Your task to perform on an android device: Open Google Chrome Image 0: 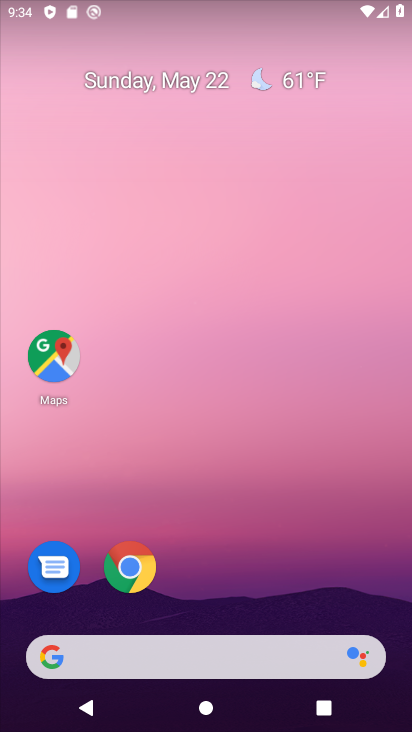
Step 0: click (126, 581)
Your task to perform on an android device: Open Google Chrome Image 1: 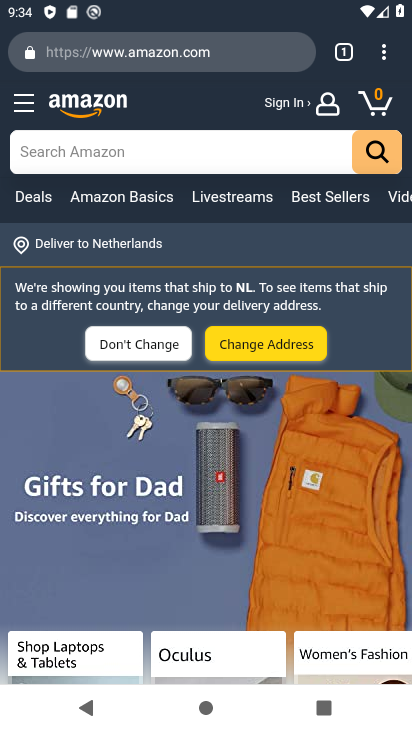
Step 1: task complete